Your task to perform on an android device: What's the weather today? Image 0: 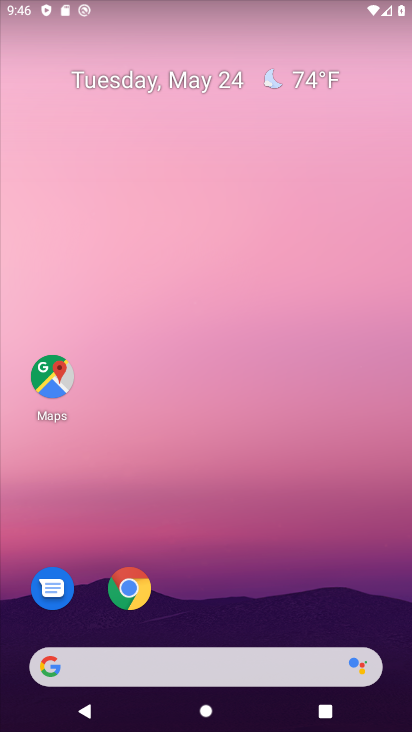
Step 0: click (313, 80)
Your task to perform on an android device: What's the weather today? Image 1: 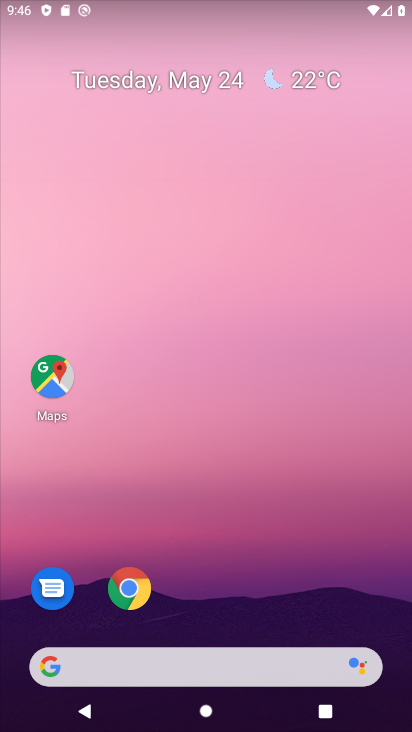
Step 1: click (332, 84)
Your task to perform on an android device: What's the weather today? Image 2: 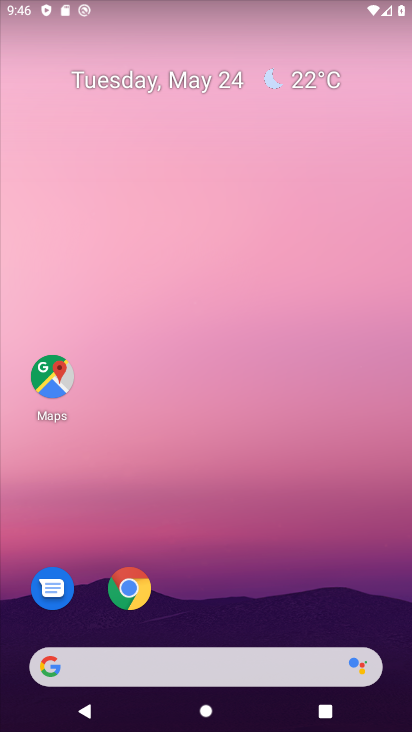
Step 2: click (332, 84)
Your task to perform on an android device: What's the weather today? Image 3: 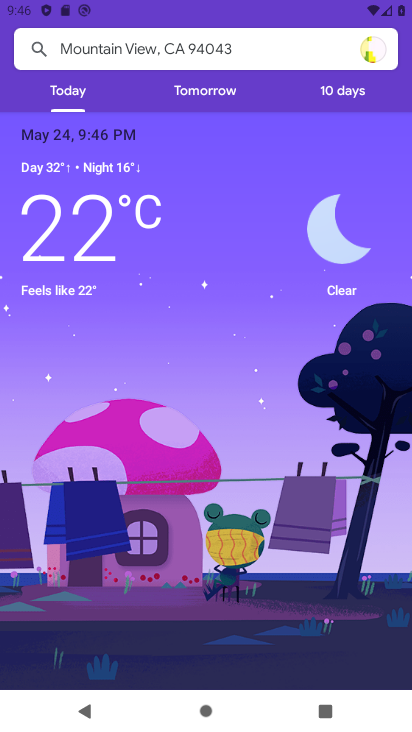
Step 3: task complete